Your task to perform on an android device: check android version Image 0: 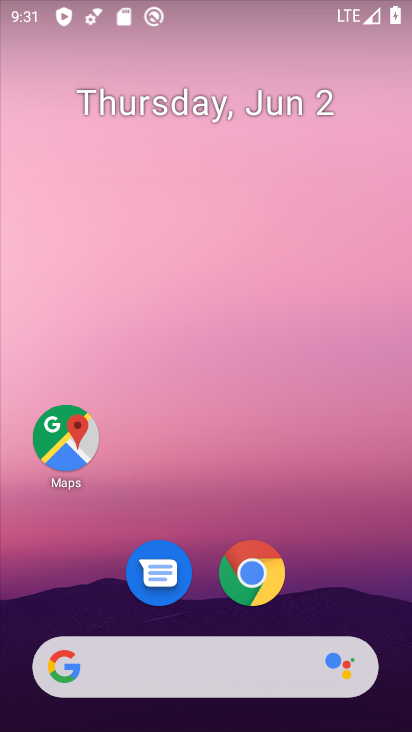
Step 0: drag from (340, 575) to (327, 227)
Your task to perform on an android device: check android version Image 1: 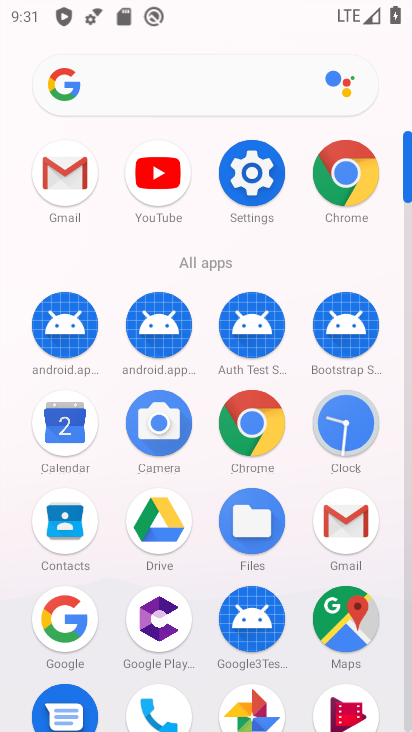
Step 1: click (258, 176)
Your task to perform on an android device: check android version Image 2: 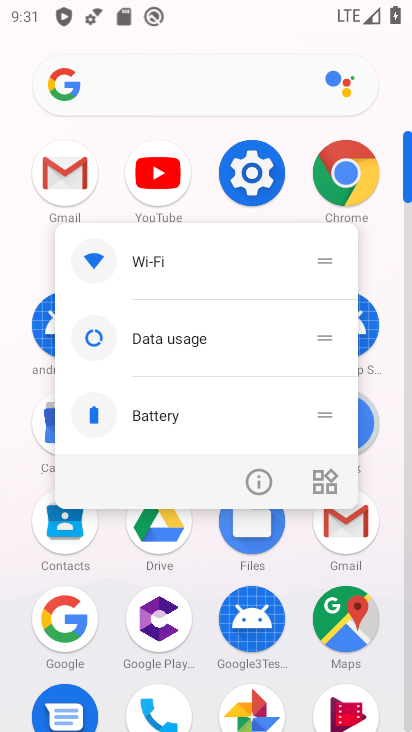
Step 2: click (243, 175)
Your task to perform on an android device: check android version Image 3: 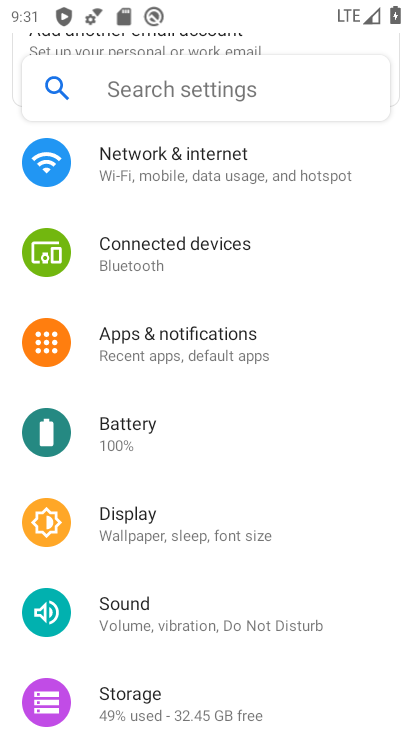
Step 3: drag from (218, 584) to (263, 109)
Your task to perform on an android device: check android version Image 4: 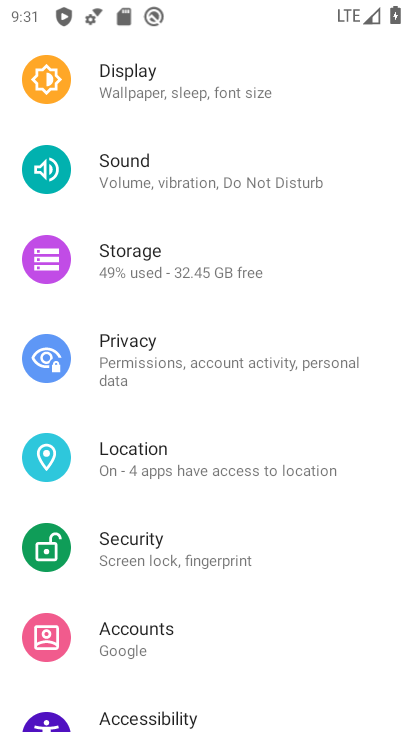
Step 4: drag from (193, 674) to (286, 239)
Your task to perform on an android device: check android version Image 5: 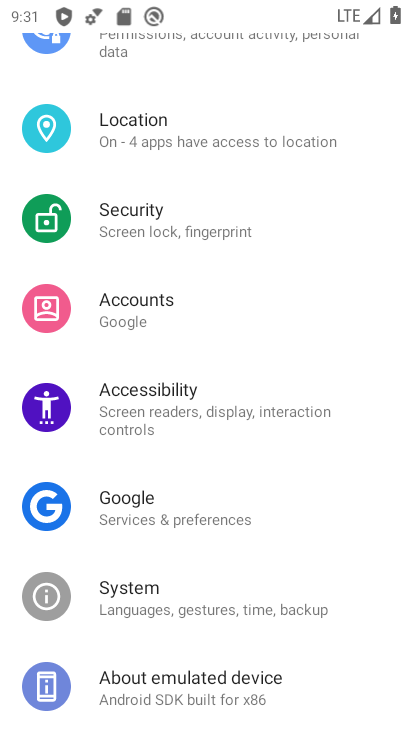
Step 5: drag from (185, 562) to (263, 215)
Your task to perform on an android device: check android version Image 6: 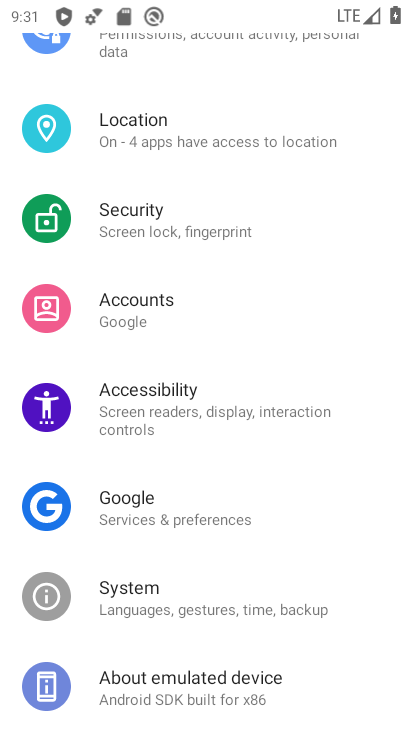
Step 6: click (189, 684)
Your task to perform on an android device: check android version Image 7: 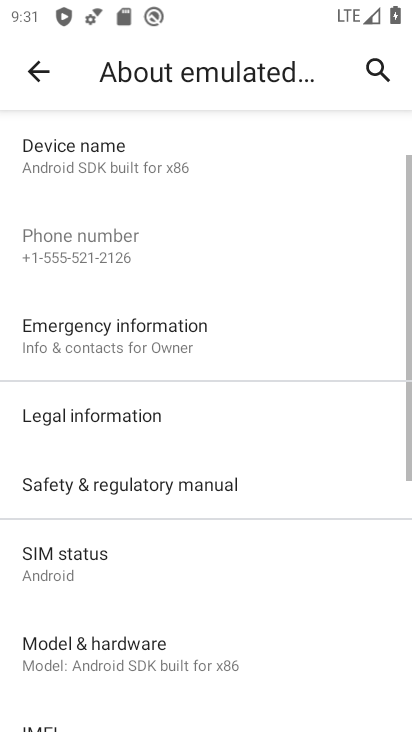
Step 7: drag from (192, 601) to (308, 249)
Your task to perform on an android device: check android version Image 8: 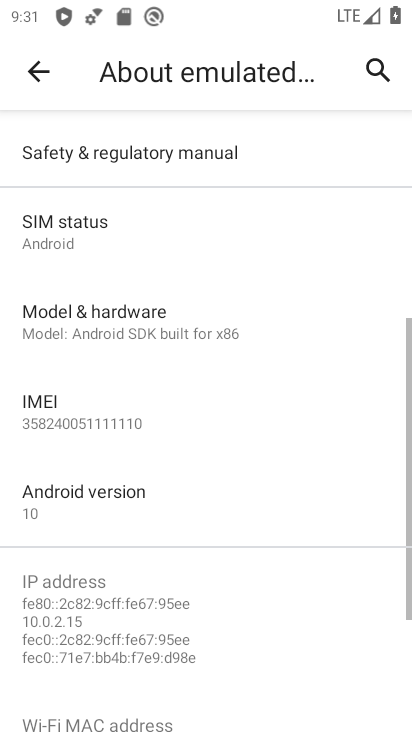
Step 8: click (94, 504)
Your task to perform on an android device: check android version Image 9: 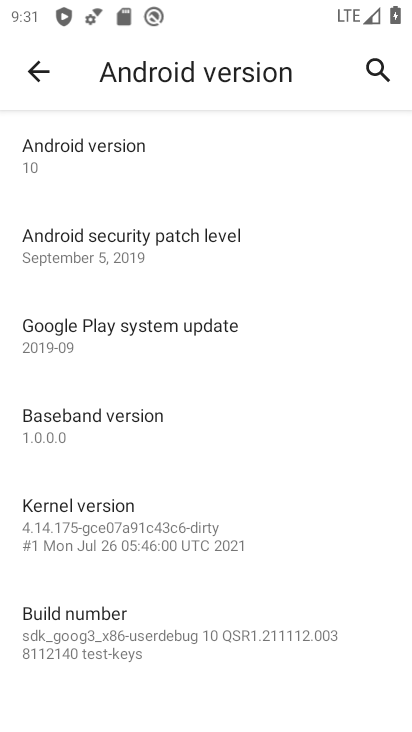
Step 9: task complete